Your task to perform on an android device: What is the news today? Image 0: 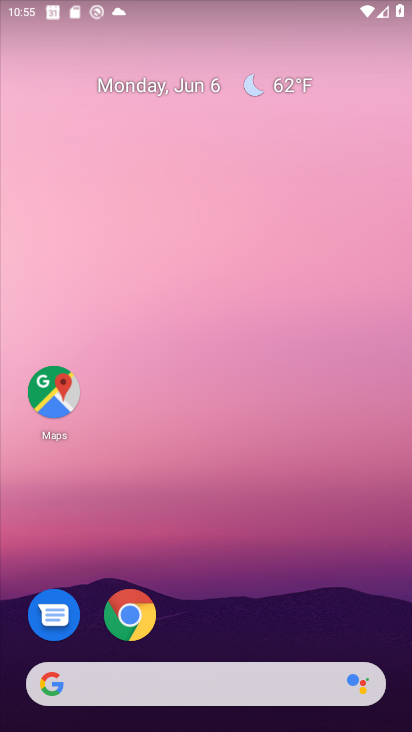
Step 0: drag from (226, 687) to (158, 88)
Your task to perform on an android device: What is the news today? Image 1: 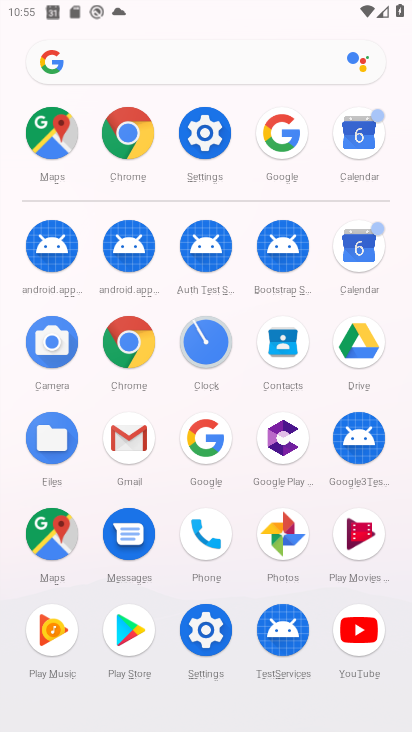
Step 1: task complete